Your task to perform on an android device: turn on notifications settings in the gmail app Image 0: 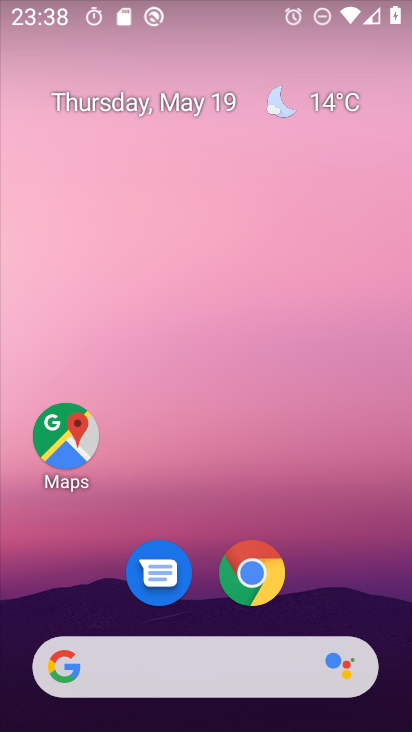
Step 0: drag from (365, 520) to (347, 86)
Your task to perform on an android device: turn on notifications settings in the gmail app Image 1: 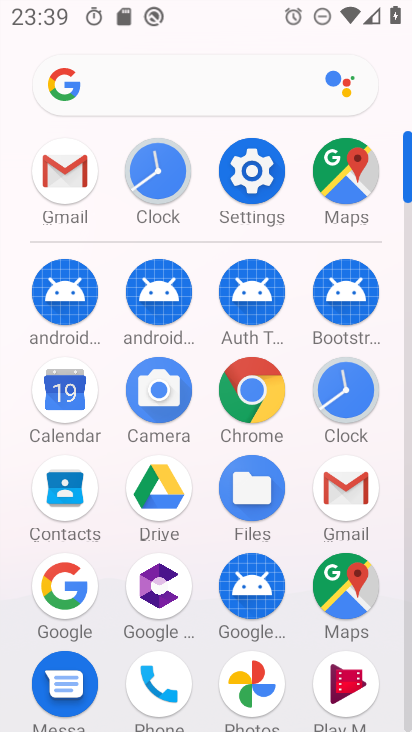
Step 1: click (80, 167)
Your task to perform on an android device: turn on notifications settings in the gmail app Image 2: 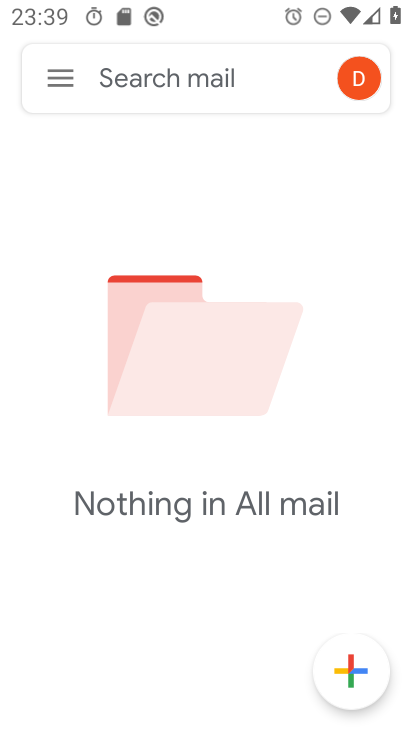
Step 2: click (71, 88)
Your task to perform on an android device: turn on notifications settings in the gmail app Image 3: 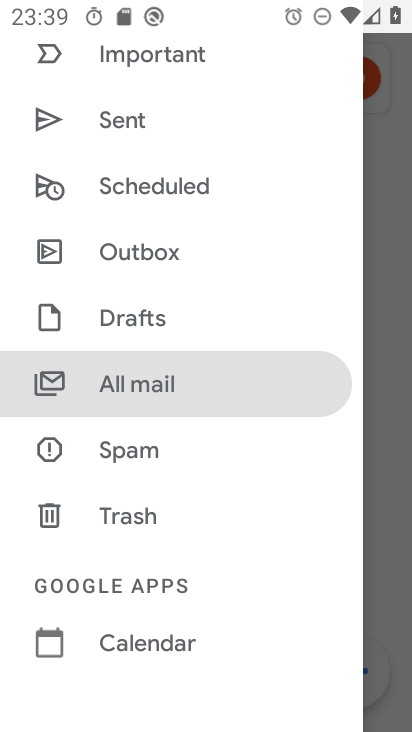
Step 3: drag from (248, 555) to (333, 87)
Your task to perform on an android device: turn on notifications settings in the gmail app Image 4: 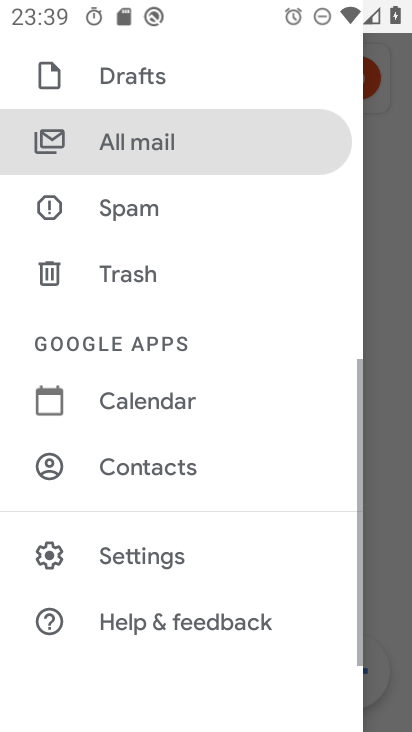
Step 4: click (171, 546)
Your task to perform on an android device: turn on notifications settings in the gmail app Image 5: 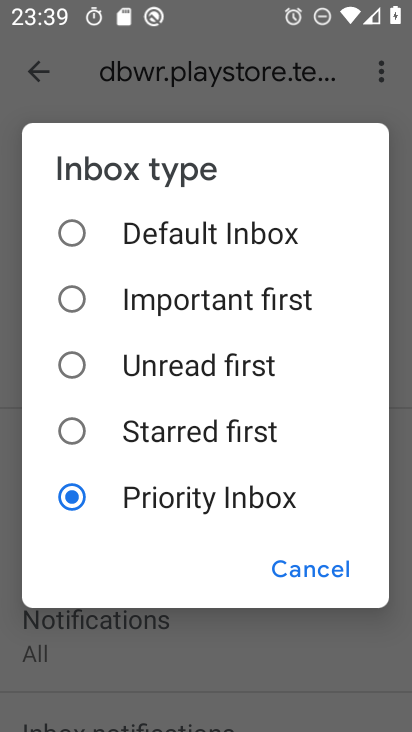
Step 5: click (298, 564)
Your task to perform on an android device: turn on notifications settings in the gmail app Image 6: 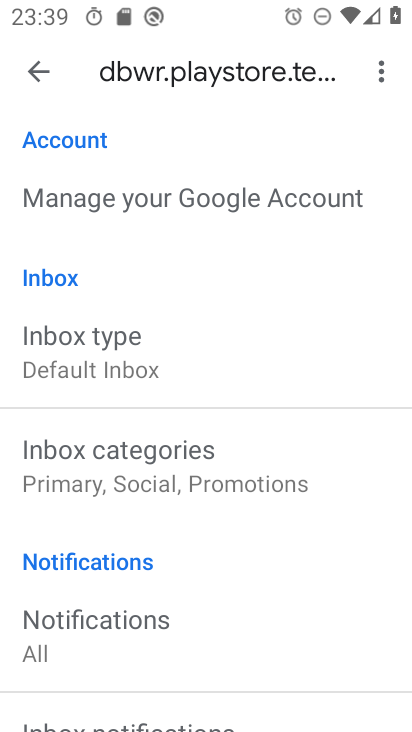
Step 6: drag from (277, 529) to (304, 114)
Your task to perform on an android device: turn on notifications settings in the gmail app Image 7: 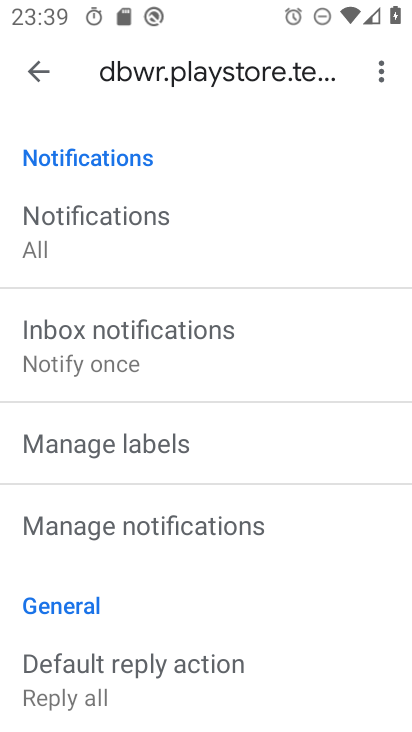
Step 7: click (150, 531)
Your task to perform on an android device: turn on notifications settings in the gmail app Image 8: 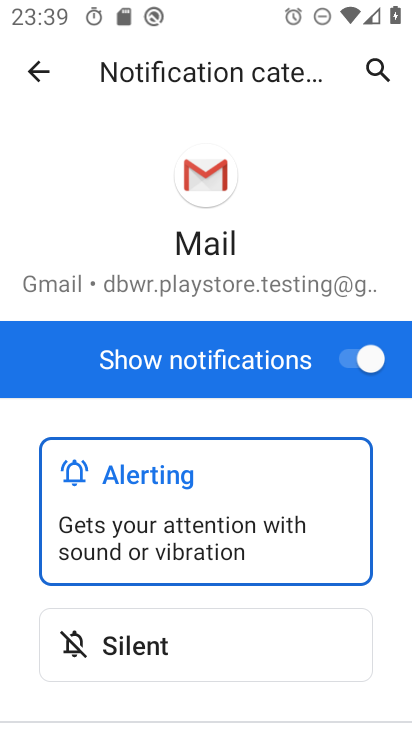
Step 8: task complete